Your task to perform on an android device: turn on translation in the chrome app Image 0: 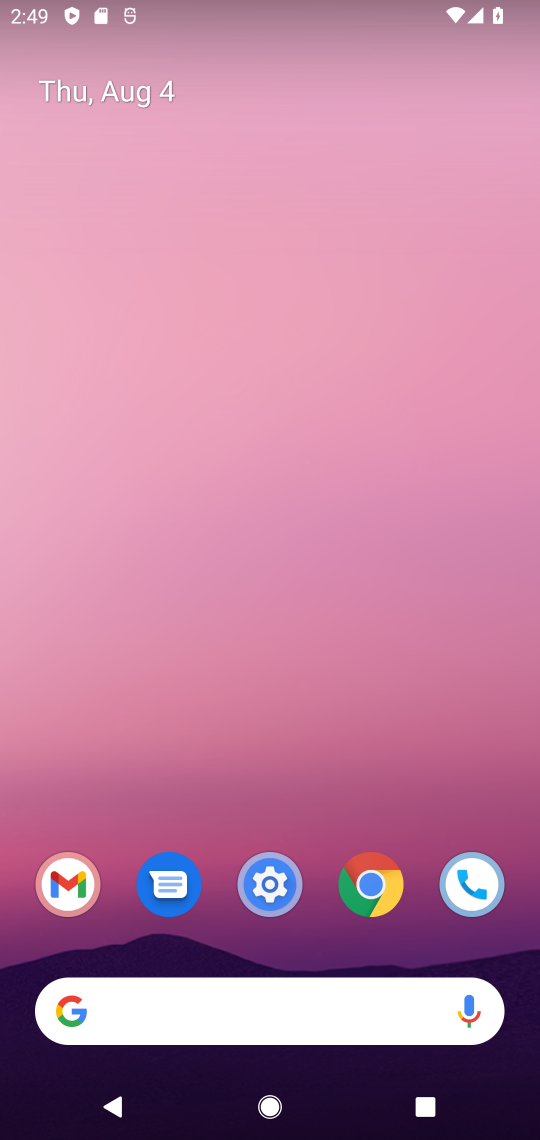
Step 0: drag from (306, 925) to (263, 227)
Your task to perform on an android device: turn on translation in the chrome app Image 1: 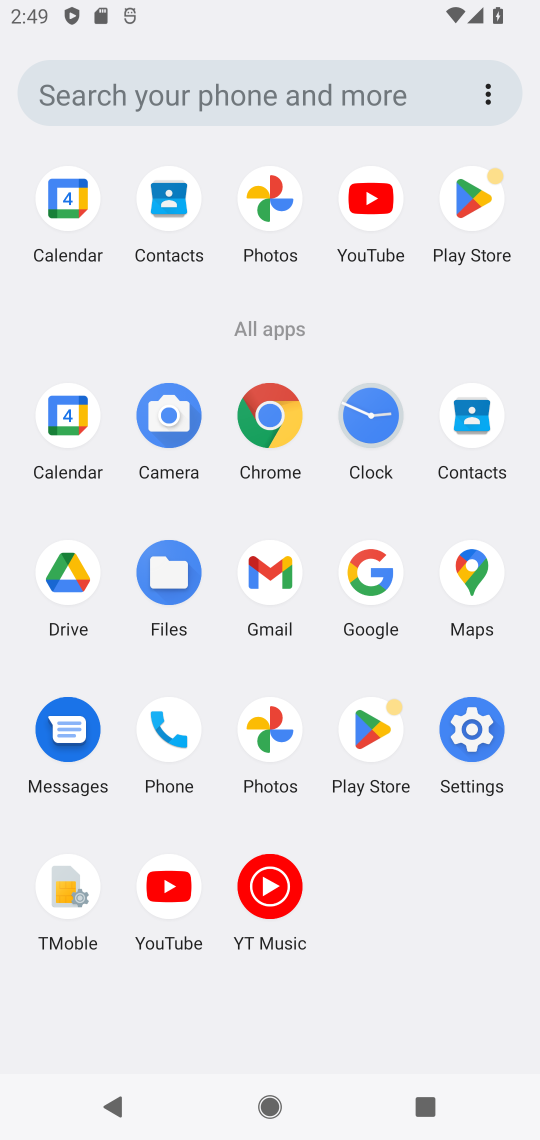
Step 1: click (281, 411)
Your task to perform on an android device: turn on translation in the chrome app Image 2: 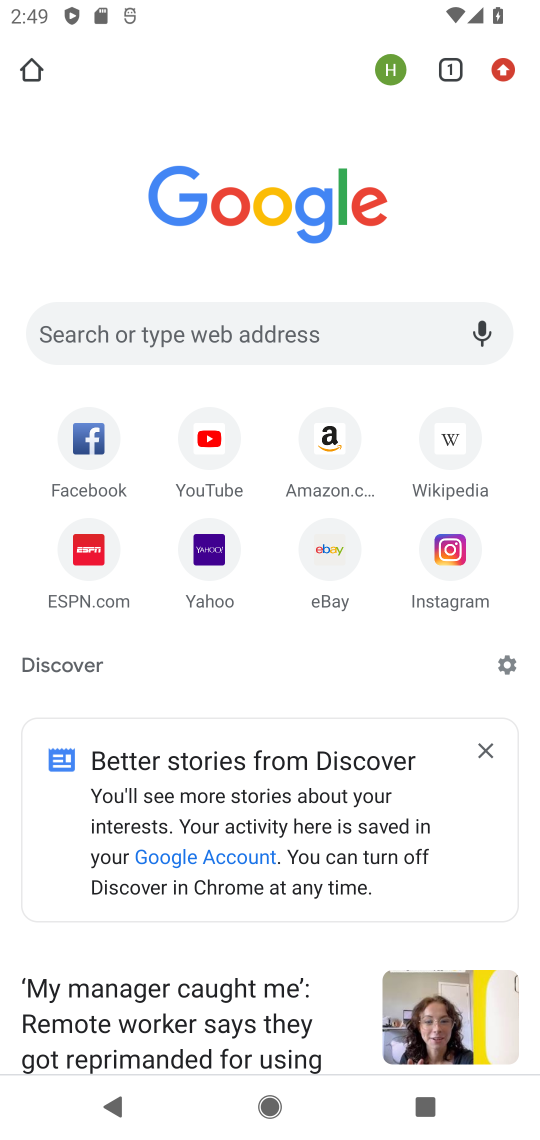
Step 2: click (512, 64)
Your task to perform on an android device: turn on translation in the chrome app Image 3: 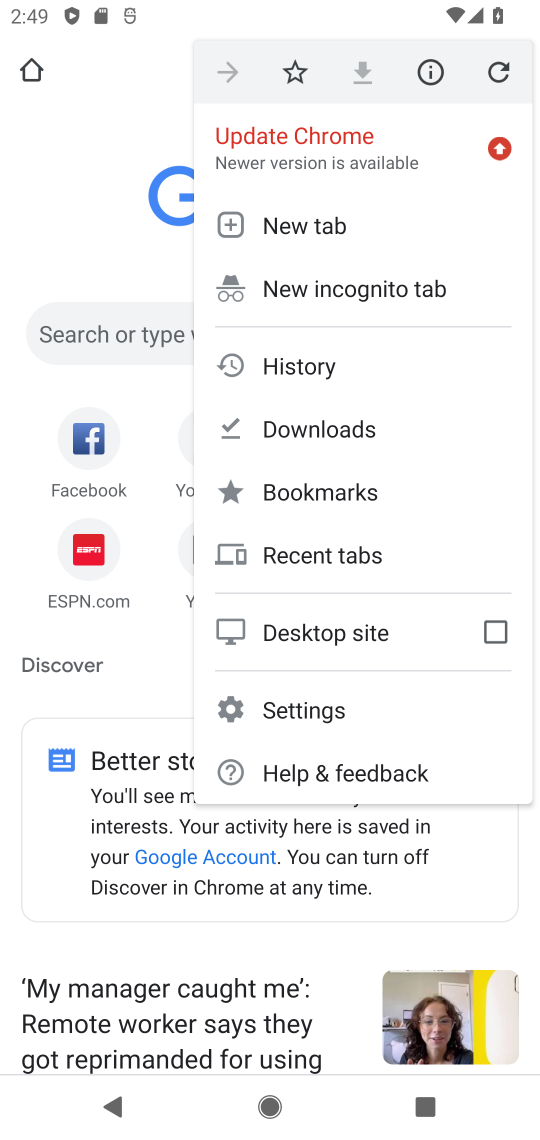
Step 3: click (312, 714)
Your task to perform on an android device: turn on translation in the chrome app Image 4: 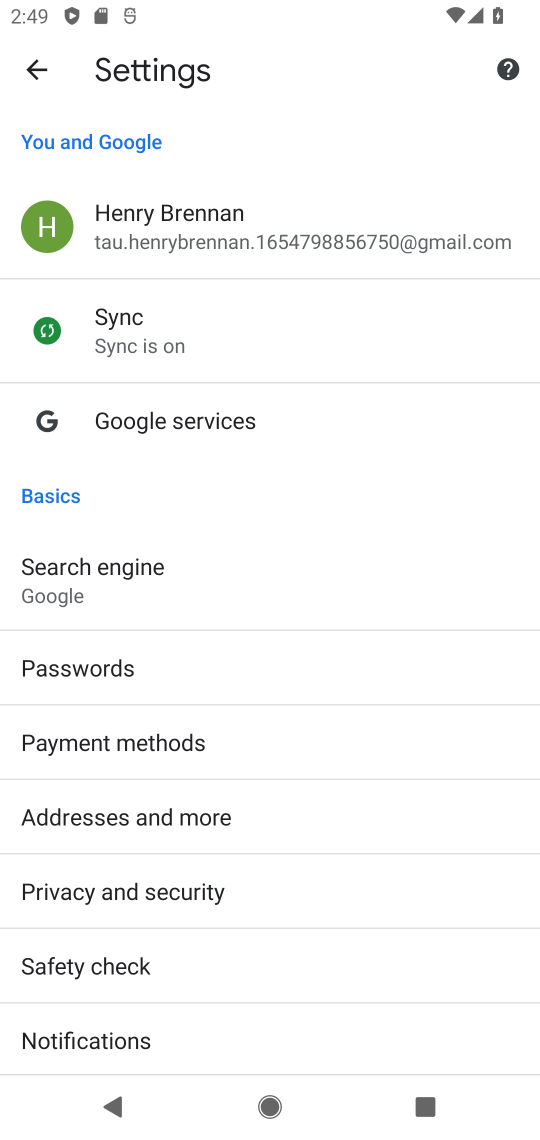
Step 4: drag from (196, 959) to (233, 295)
Your task to perform on an android device: turn on translation in the chrome app Image 5: 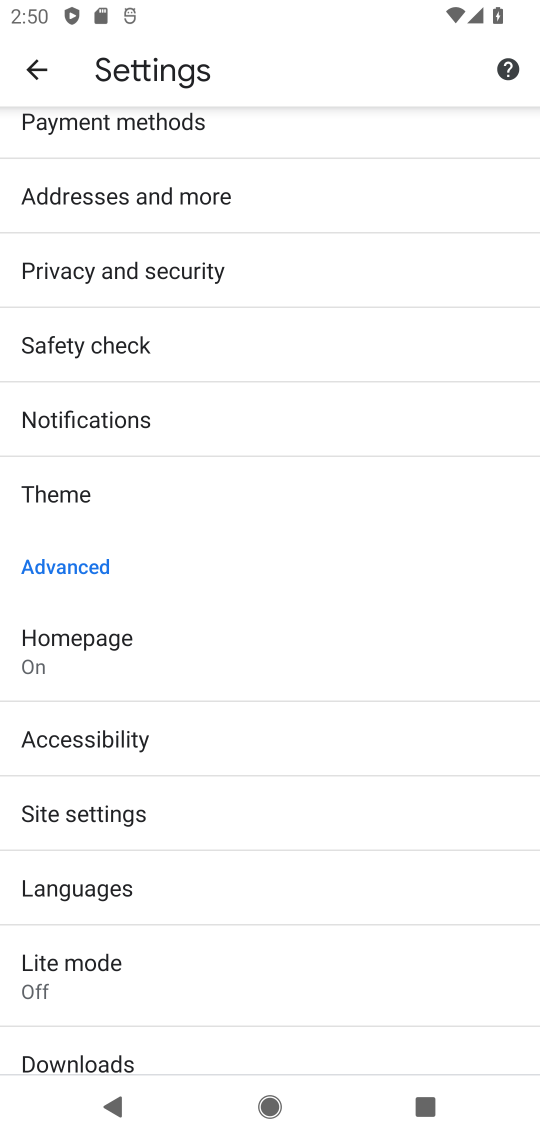
Step 5: click (145, 897)
Your task to perform on an android device: turn on translation in the chrome app Image 6: 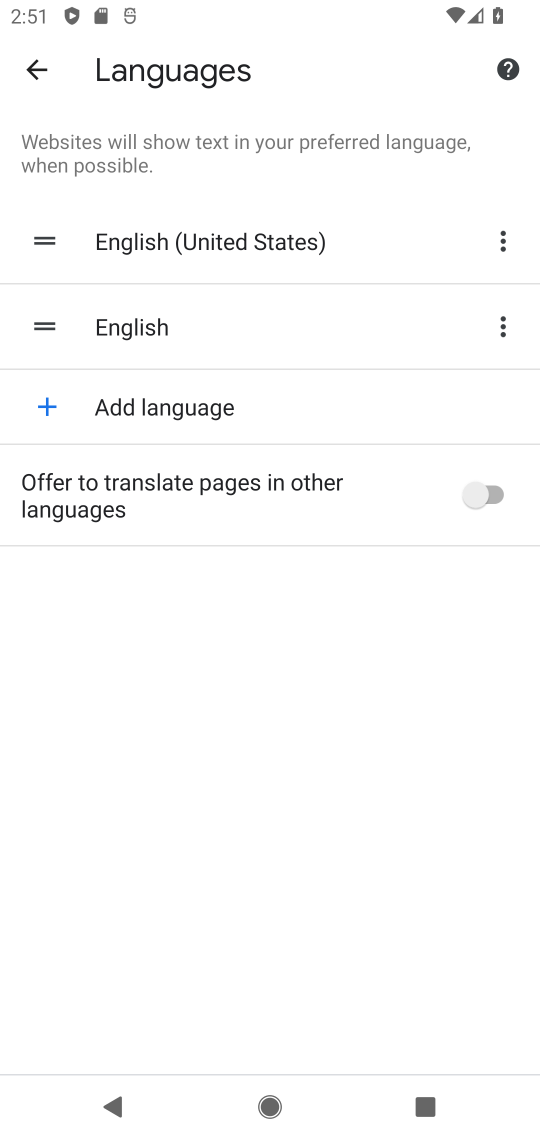
Step 6: click (468, 491)
Your task to perform on an android device: turn on translation in the chrome app Image 7: 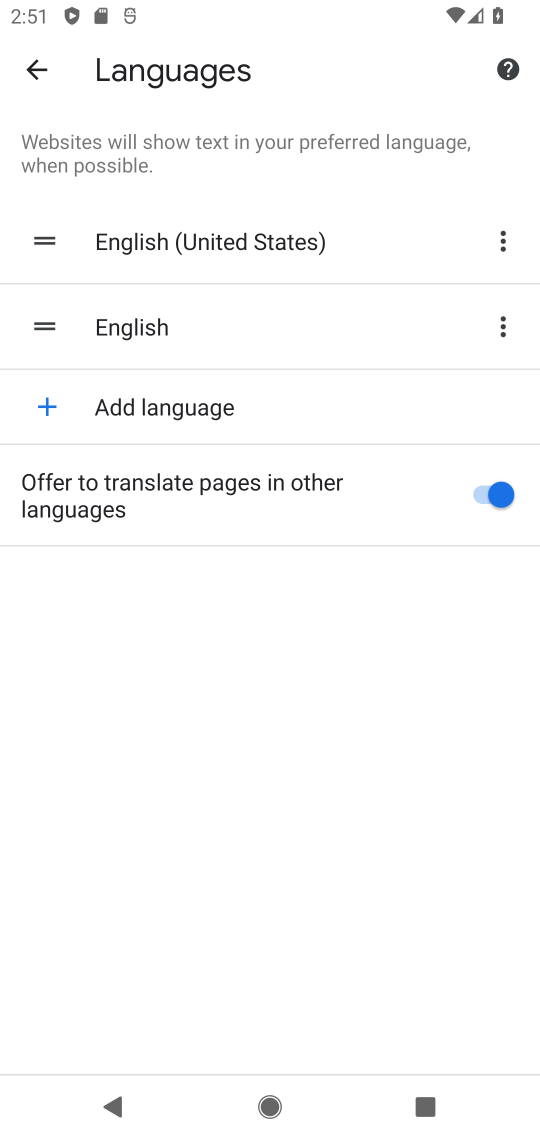
Step 7: task complete